Your task to perform on an android device: open app "DoorDash - Food Delivery" (install if not already installed) Image 0: 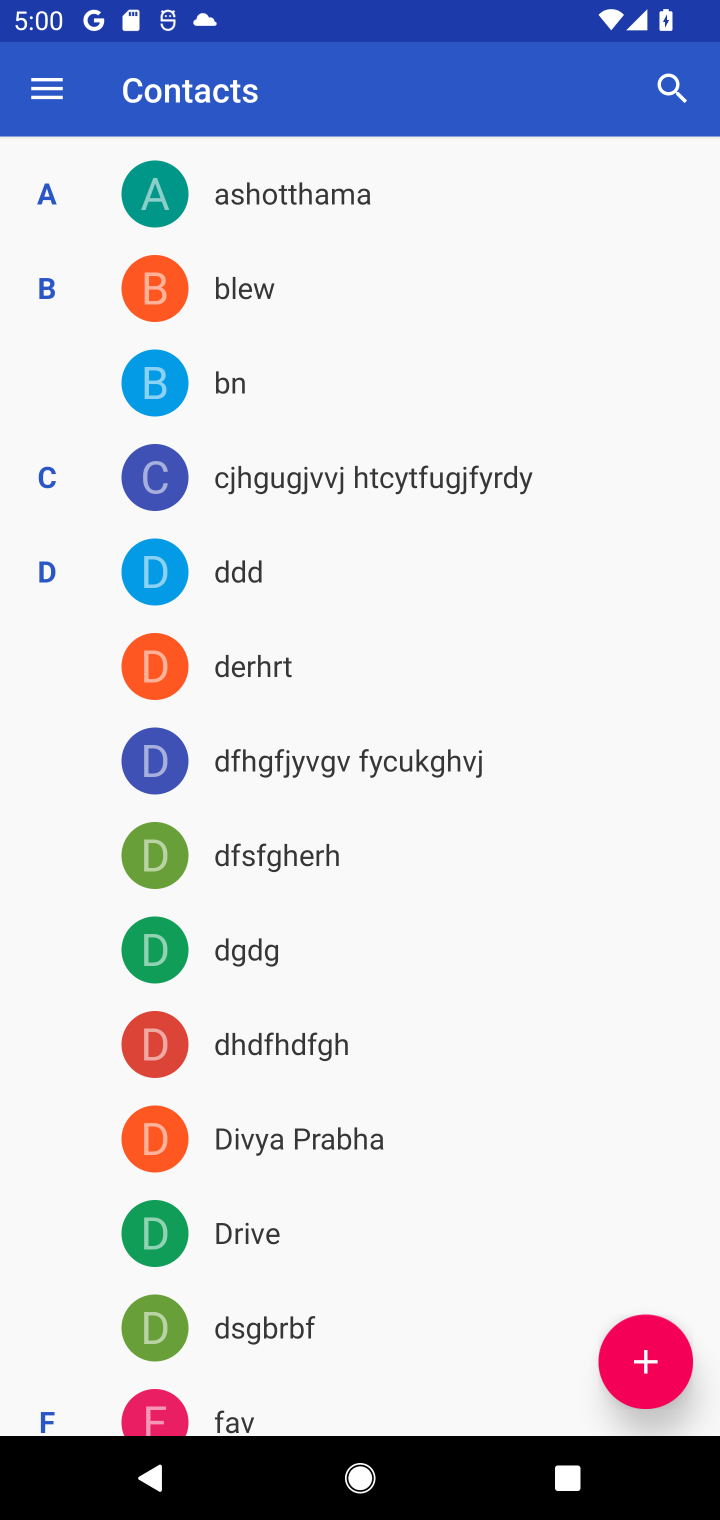
Step 0: press home button
Your task to perform on an android device: open app "DoorDash - Food Delivery" (install if not already installed) Image 1: 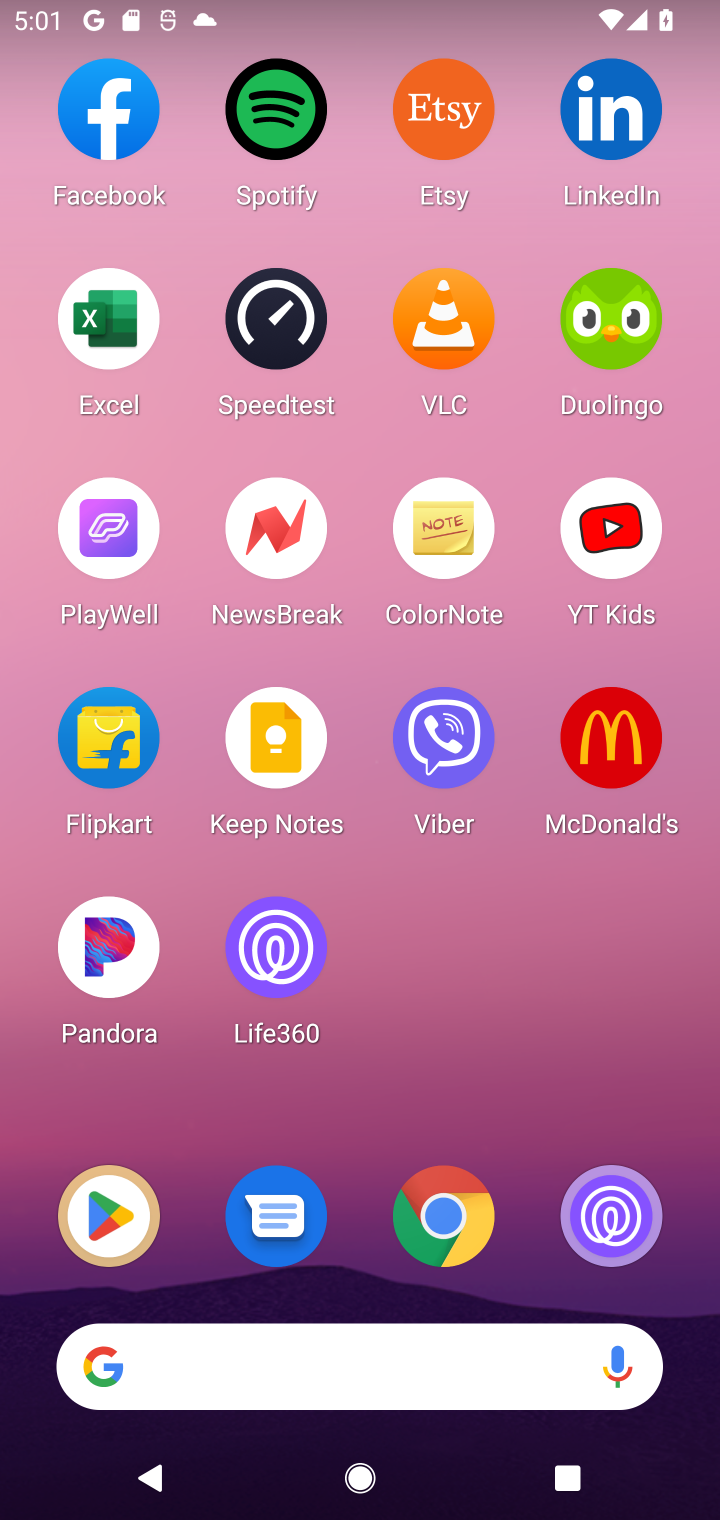
Step 1: click (153, 1235)
Your task to perform on an android device: open app "DoorDash - Food Delivery" (install if not already installed) Image 2: 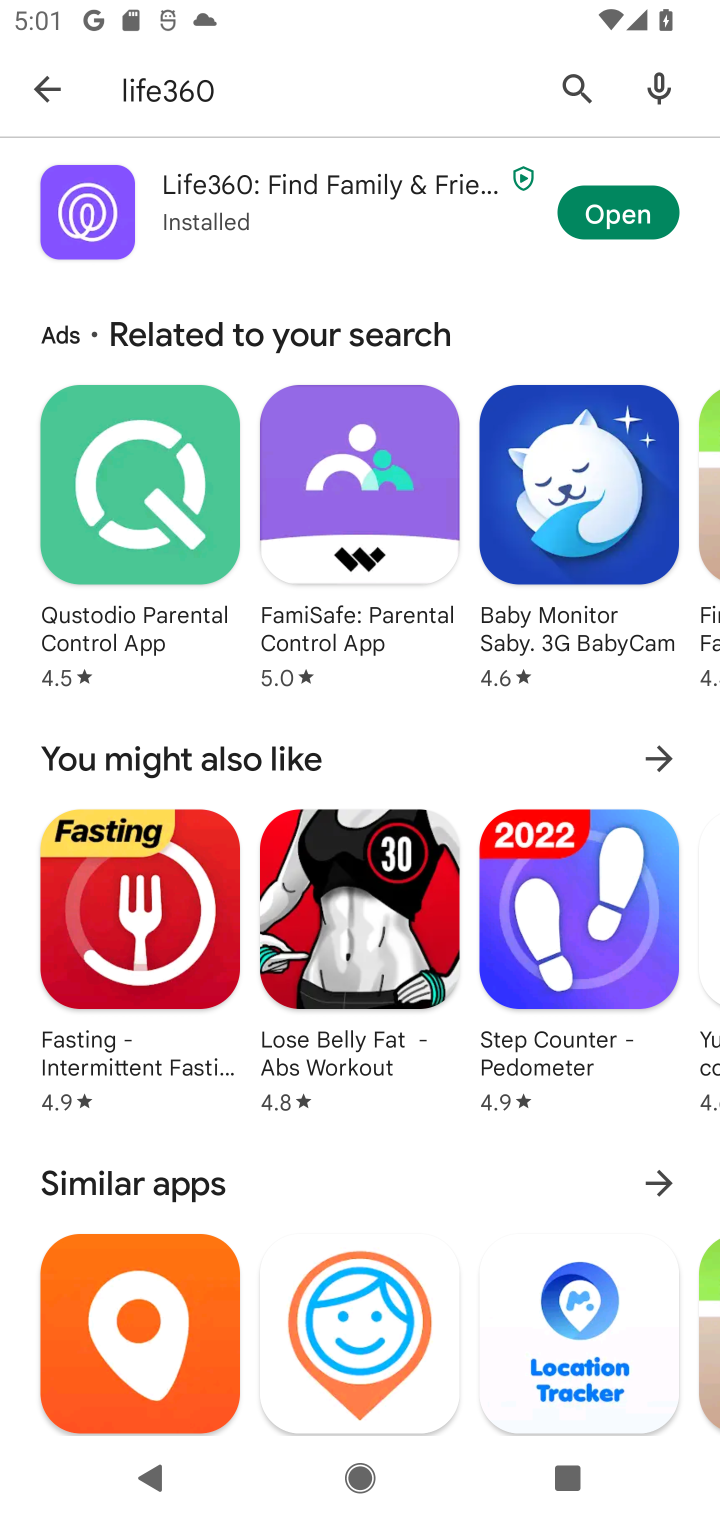
Step 2: click (559, 92)
Your task to perform on an android device: open app "DoorDash - Food Delivery" (install if not already installed) Image 3: 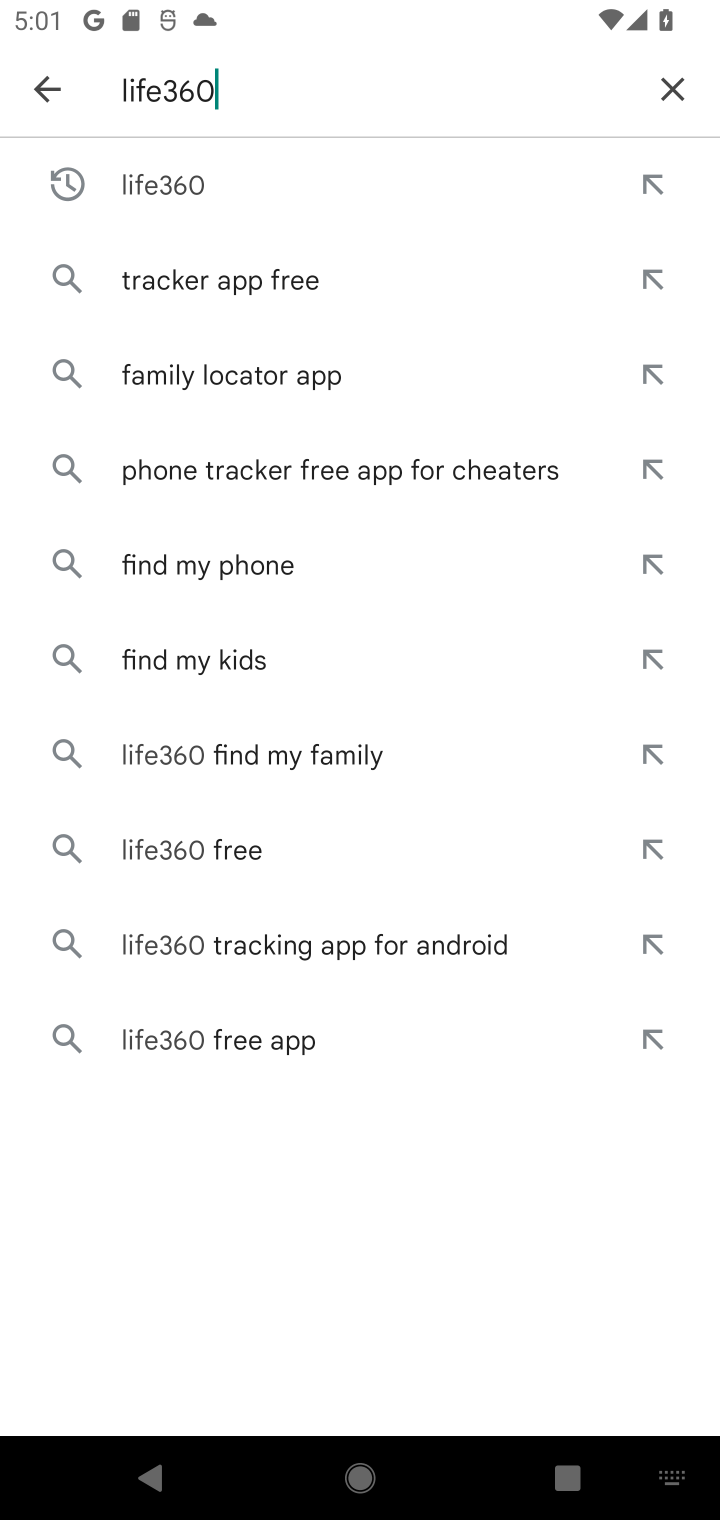
Step 3: click (672, 90)
Your task to perform on an android device: open app "DoorDash - Food Delivery" (install if not already installed) Image 4: 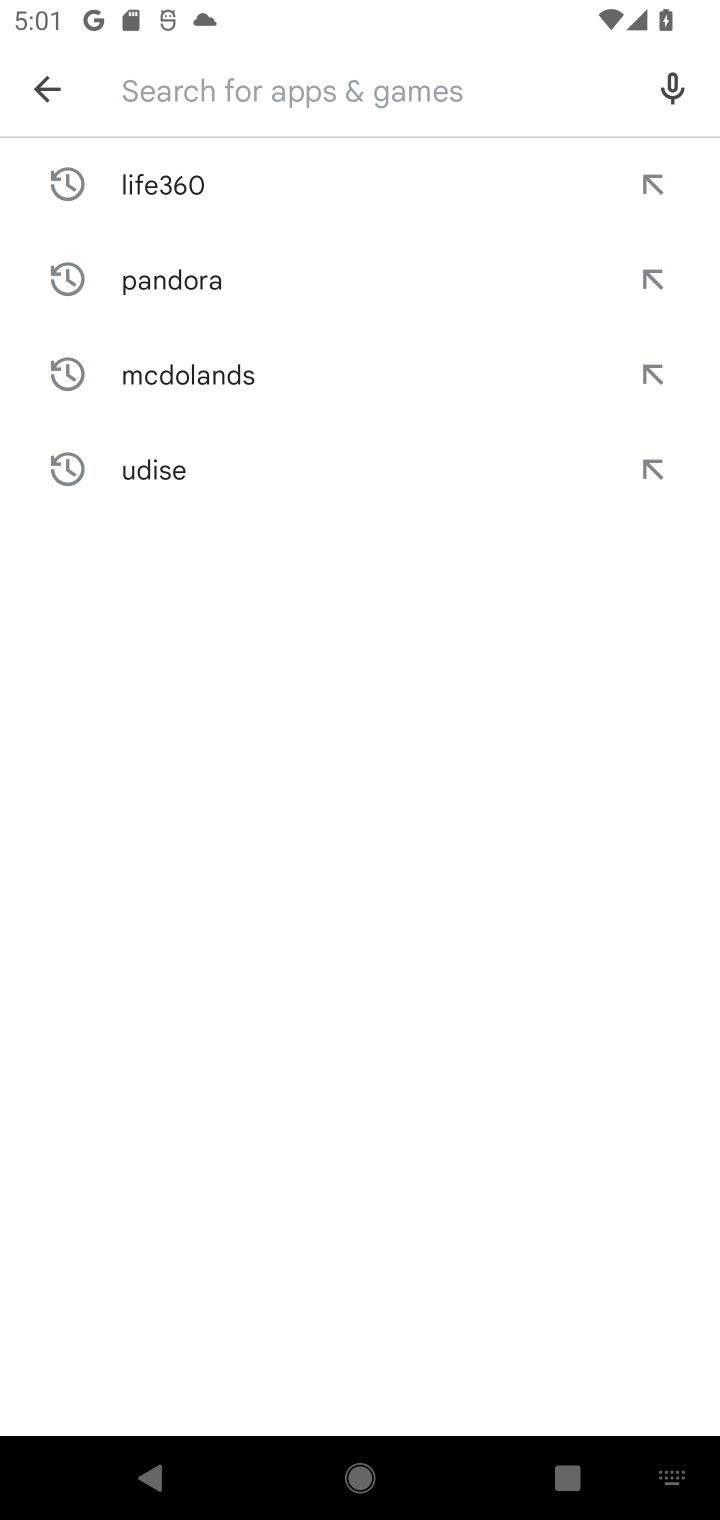
Step 4: type "doordash"
Your task to perform on an android device: open app "DoorDash - Food Delivery" (install if not already installed) Image 5: 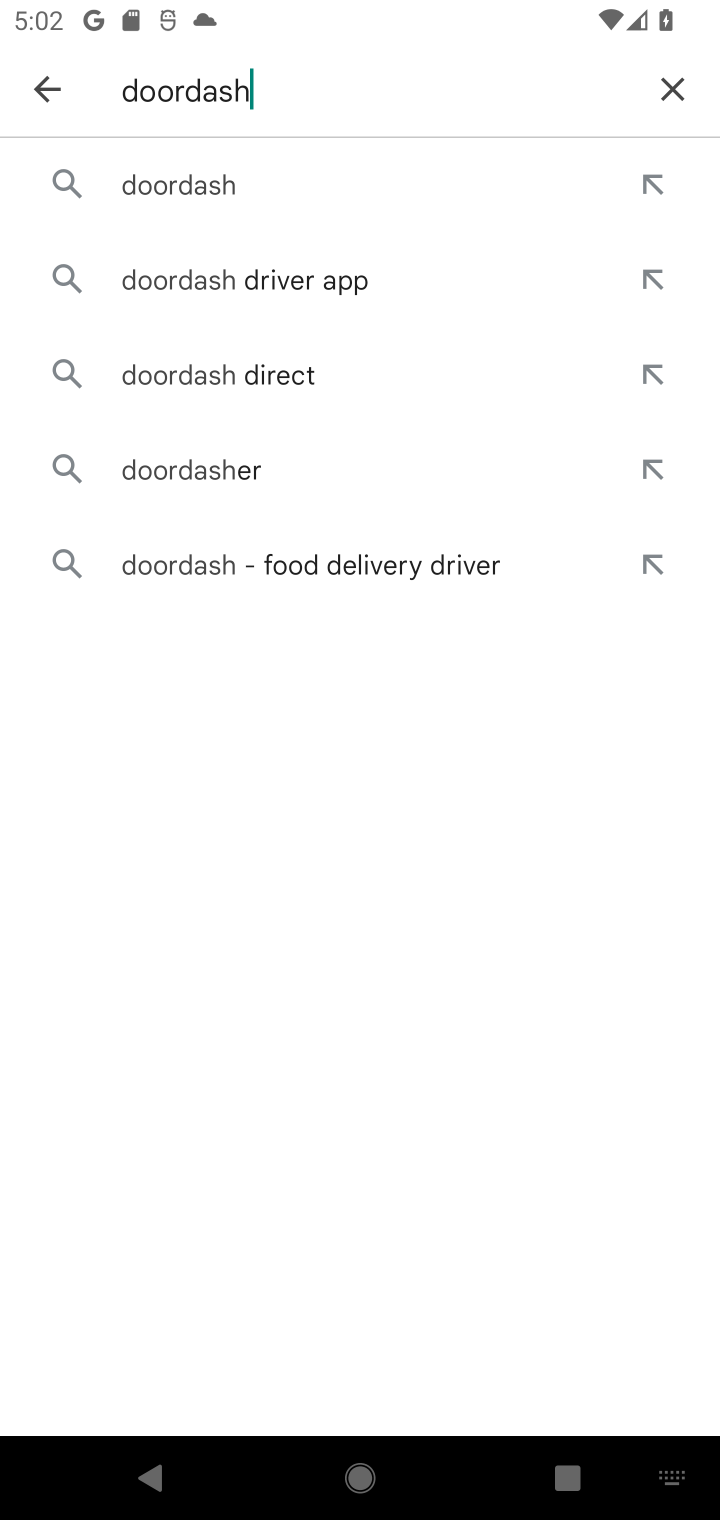
Step 5: click (185, 192)
Your task to perform on an android device: open app "DoorDash - Food Delivery" (install if not already installed) Image 6: 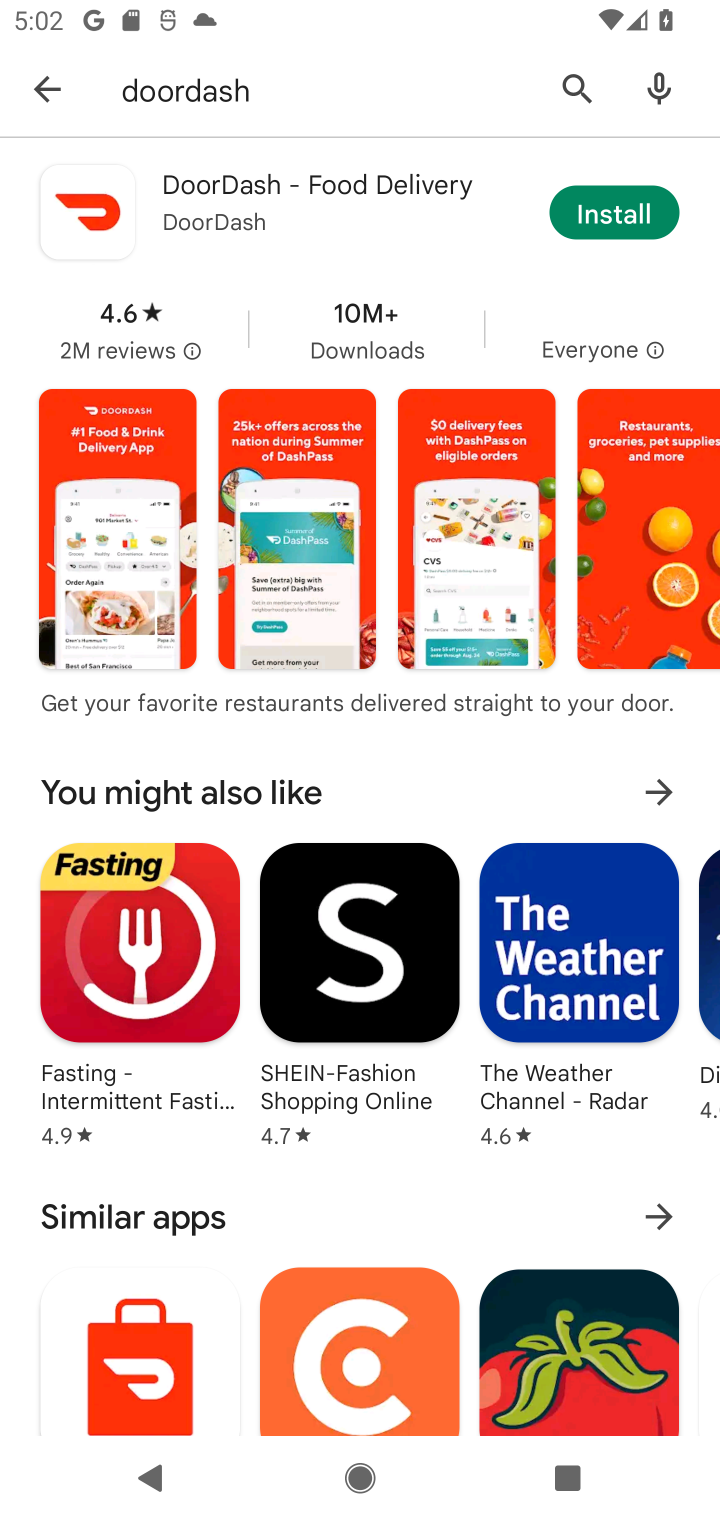
Step 6: click (605, 227)
Your task to perform on an android device: open app "DoorDash - Food Delivery" (install if not already installed) Image 7: 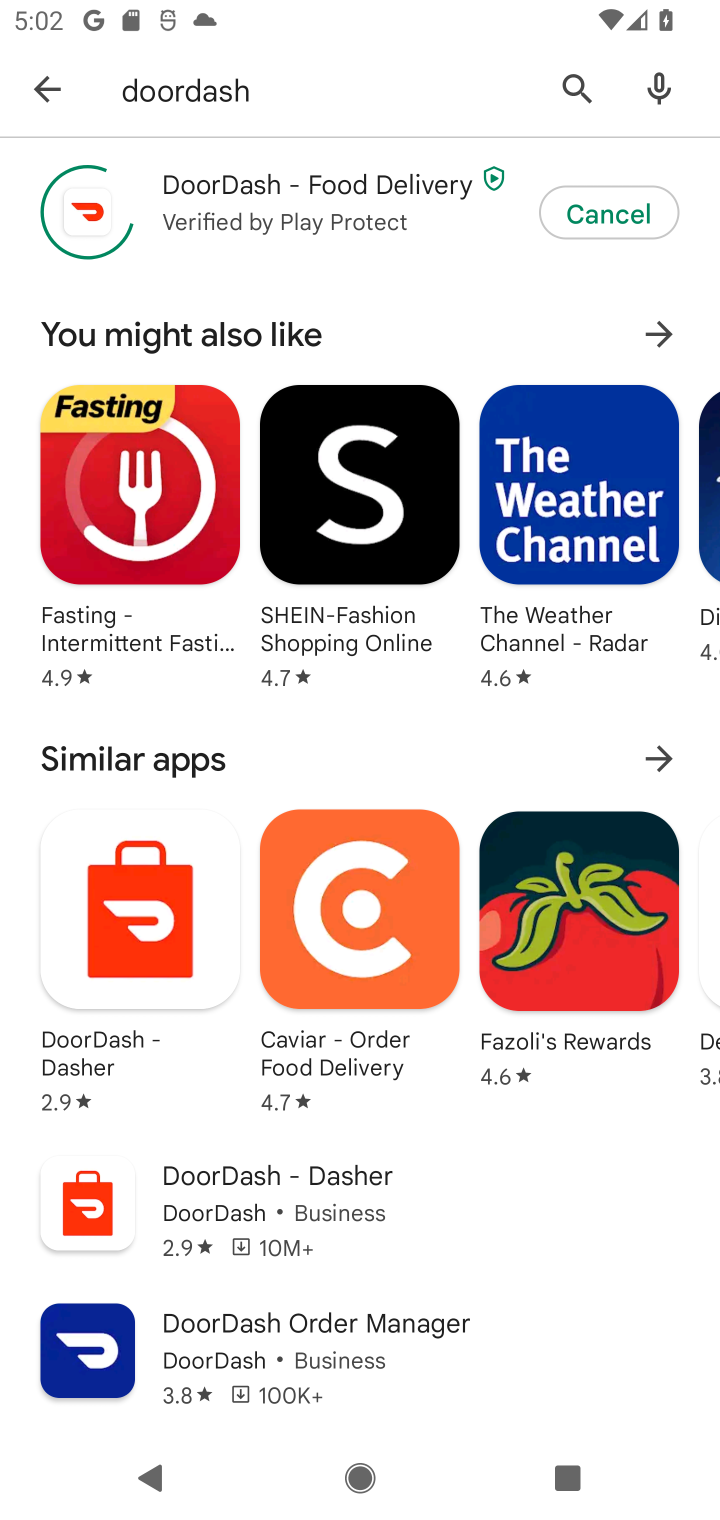
Step 7: task complete